Your task to perform on an android device: find which apps use the phone's location Image 0: 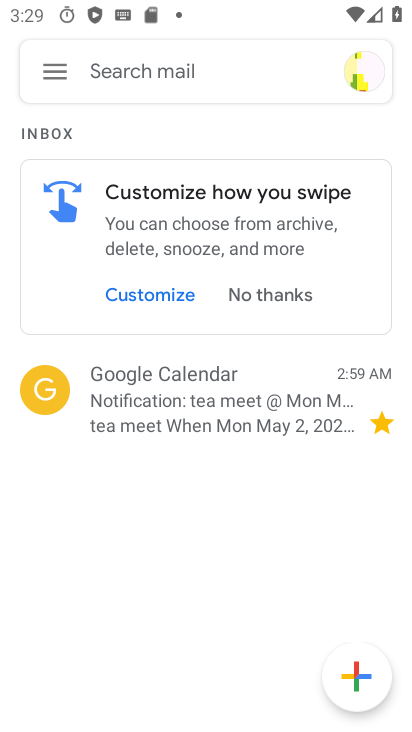
Step 0: press home button
Your task to perform on an android device: find which apps use the phone's location Image 1: 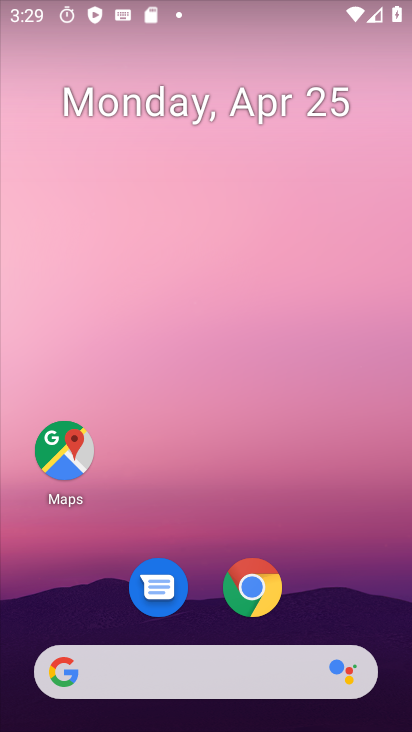
Step 1: drag from (323, 501) to (304, 35)
Your task to perform on an android device: find which apps use the phone's location Image 2: 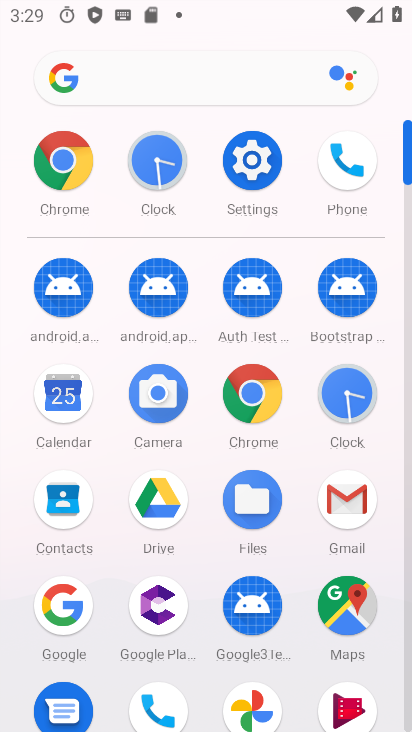
Step 2: drag from (285, 451) to (305, 100)
Your task to perform on an android device: find which apps use the phone's location Image 3: 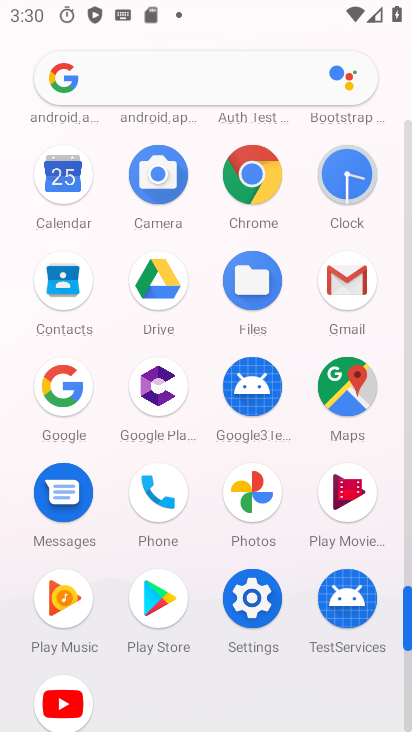
Step 3: click (254, 597)
Your task to perform on an android device: find which apps use the phone's location Image 4: 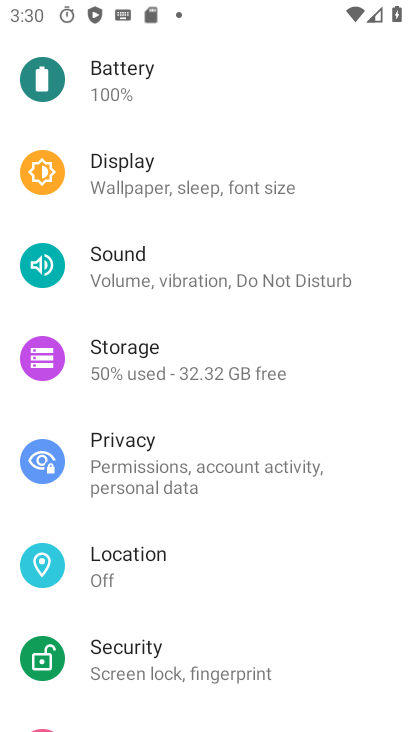
Step 4: drag from (272, 674) to (322, 245)
Your task to perform on an android device: find which apps use the phone's location Image 5: 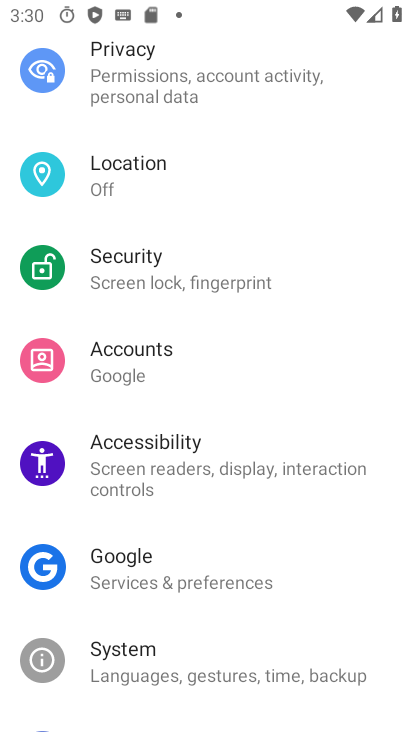
Step 5: click (142, 195)
Your task to perform on an android device: find which apps use the phone's location Image 6: 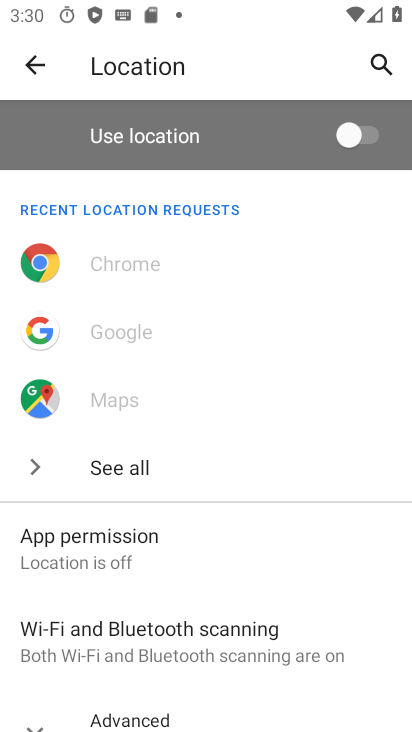
Step 6: drag from (304, 674) to (277, 161)
Your task to perform on an android device: find which apps use the phone's location Image 7: 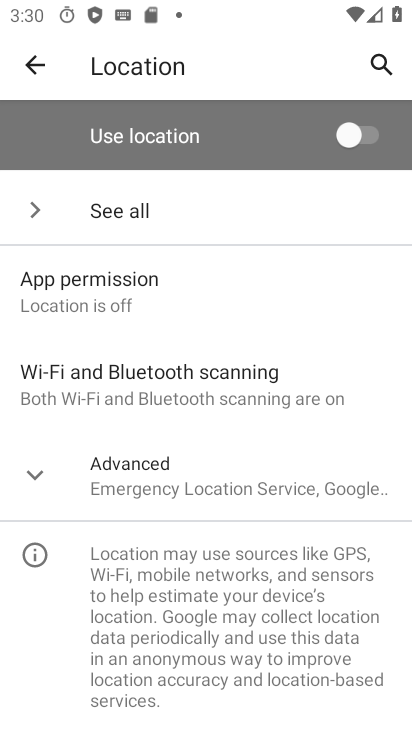
Step 7: click (93, 290)
Your task to perform on an android device: find which apps use the phone's location Image 8: 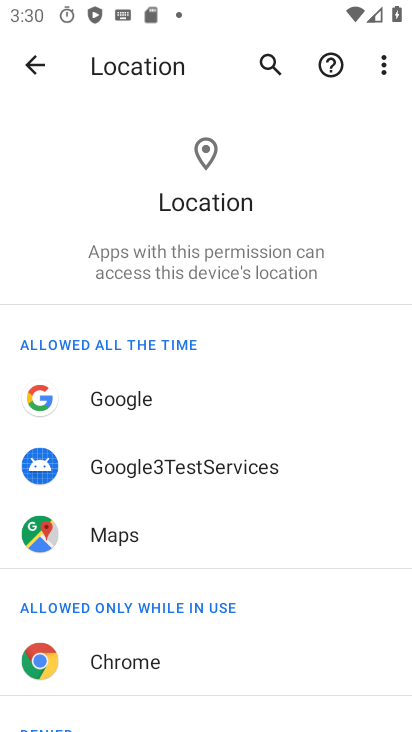
Step 8: task complete